Your task to perform on an android device: Open the phone app and click the voicemail tab. Image 0: 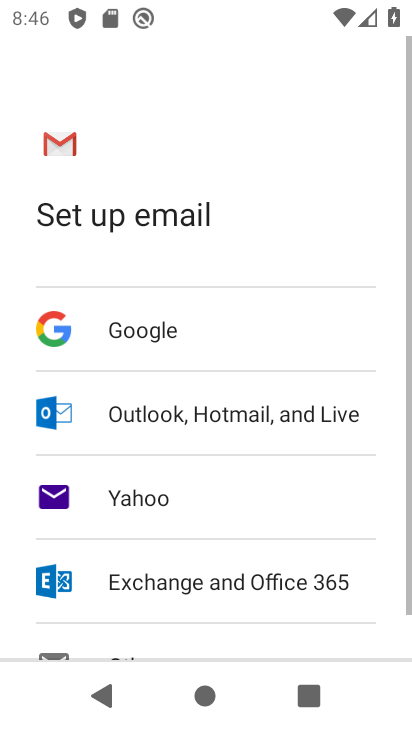
Step 0: press home button
Your task to perform on an android device: Open the phone app and click the voicemail tab. Image 1: 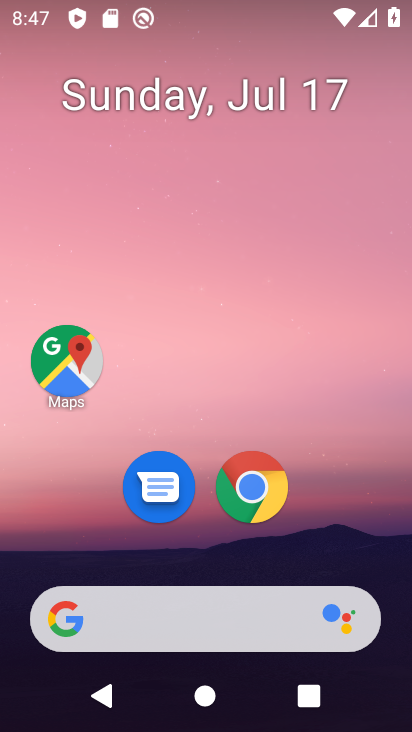
Step 1: drag from (353, 501) to (366, 467)
Your task to perform on an android device: Open the phone app and click the voicemail tab. Image 2: 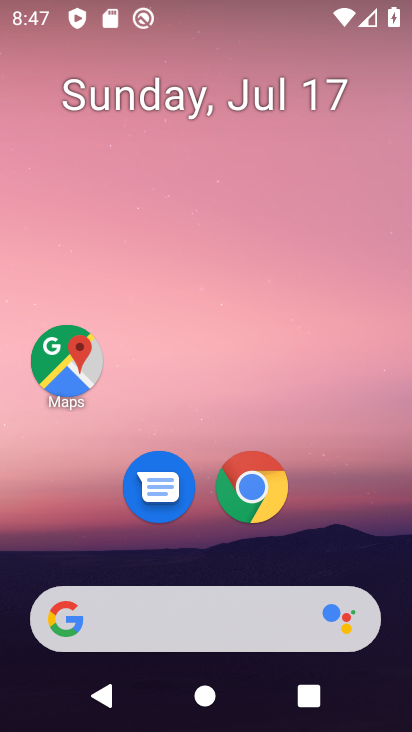
Step 2: drag from (353, 474) to (367, 109)
Your task to perform on an android device: Open the phone app and click the voicemail tab. Image 3: 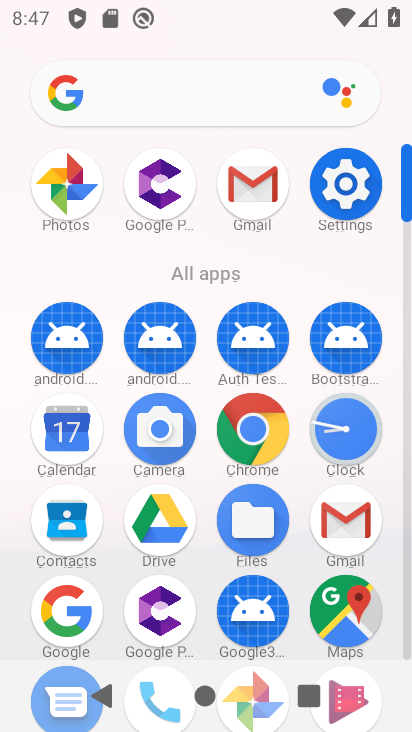
Step 3: click (161, 700)
Your task to perform on an android device: Open the phone app and click the voicemail tab. Image 4: 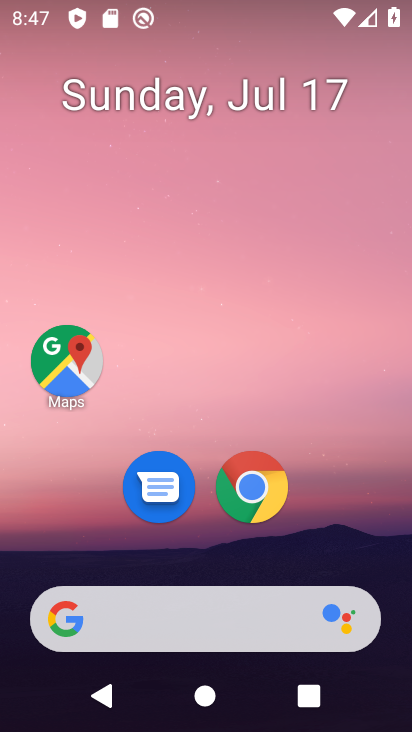
Step 4: drag from (366, 497) to (380, 4)
Your task to perform on an android device: Open the phone app and click the voicemail tab. Image 5: 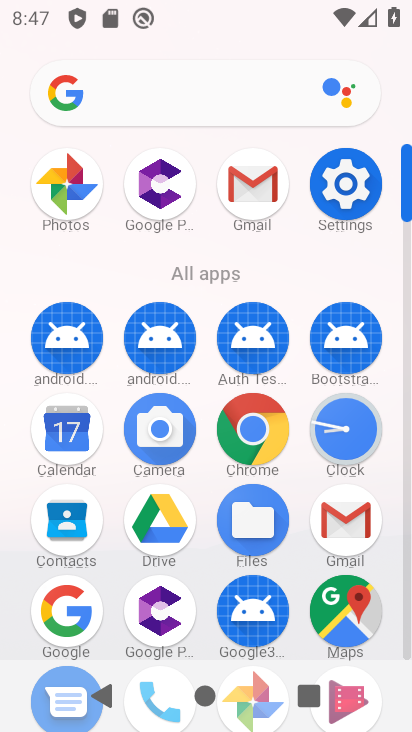
Step 5: drag from (201, 542) to (228, 186)
Your task to perform on an android device: Open the phone app and click the voicemail tab. Image 6: 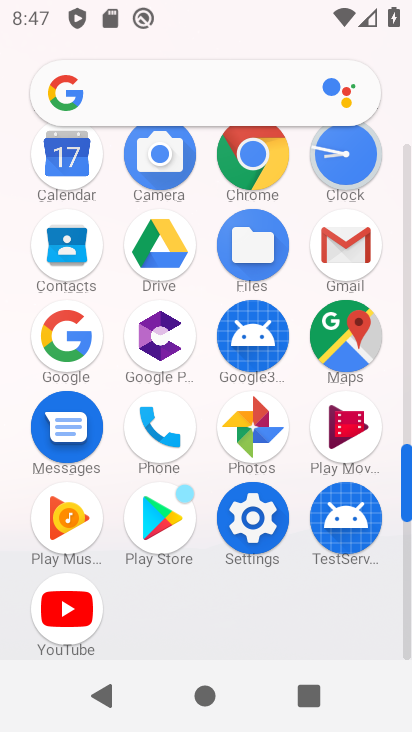
Step 6: click (164, 422)
Your task to perform on an android device: Open the phone app and click the voicemail tab. Image 7: 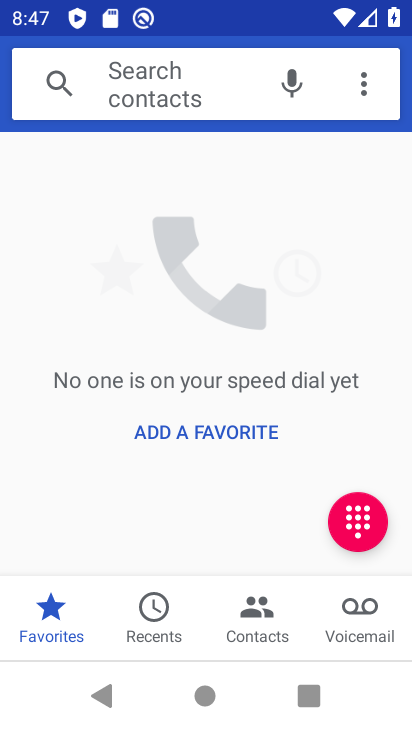
Step 7: click (353, 610)
Your task to perform on an android device: Open the phone app and click the voicemail tab. Image 8: 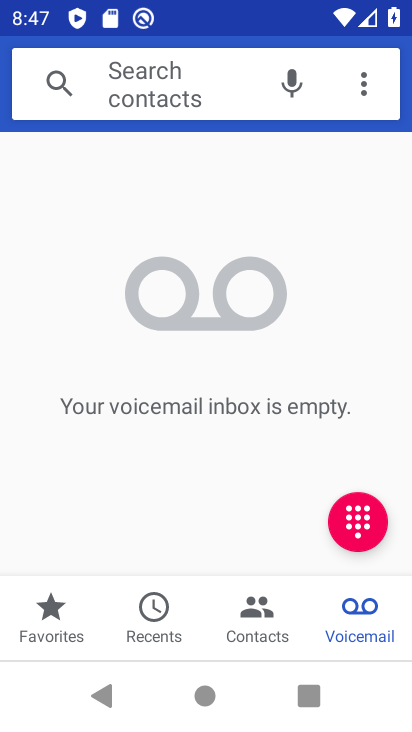
Step 8: task complete